Your task to perform on an android device: Open Google Maps and go to "Timeline" Image 0: 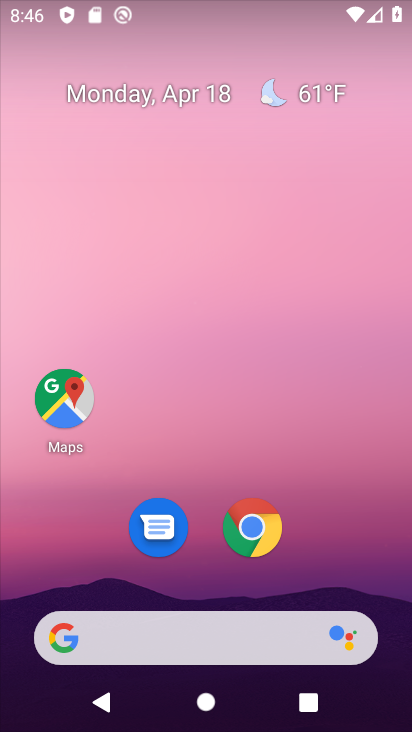
Step 0: click (61, 399)
Your task to perform on an android device: Open Google Maps and go to "Timeline" Image 1: 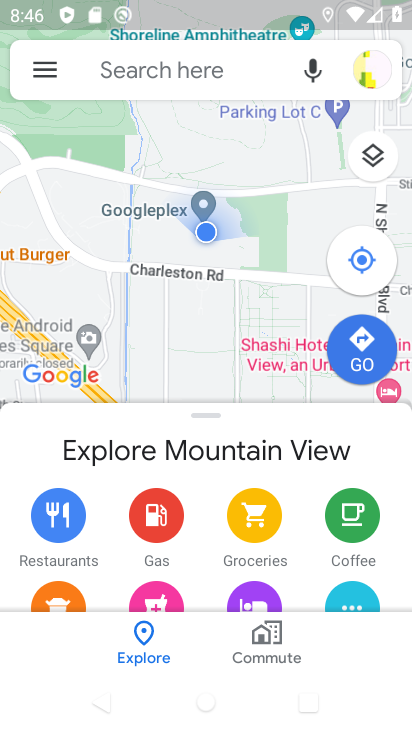
Step 1: click (41, 74)
Your task to perform on an android device: Open Google Maps and go to "Timeline" Image 2: 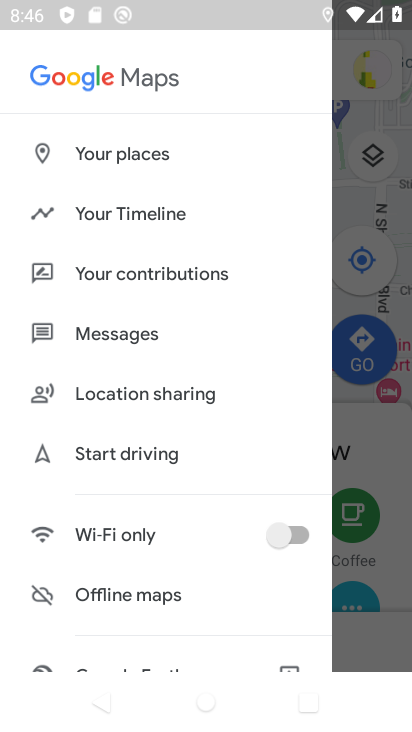
Step 2: click (116, 214)
Your task to perform on an android device: Open Google Maps and go to "Timeline" Image 3: 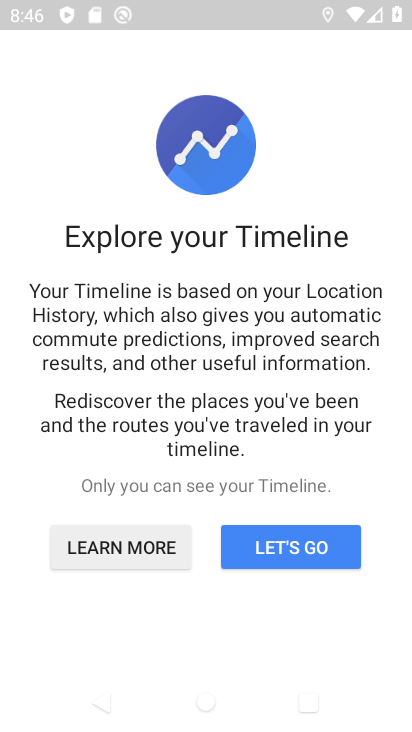
Step 3: click (323, 545)
Your task to perform on an android device: Open Google Maps and go to "Timeline" Image 4: 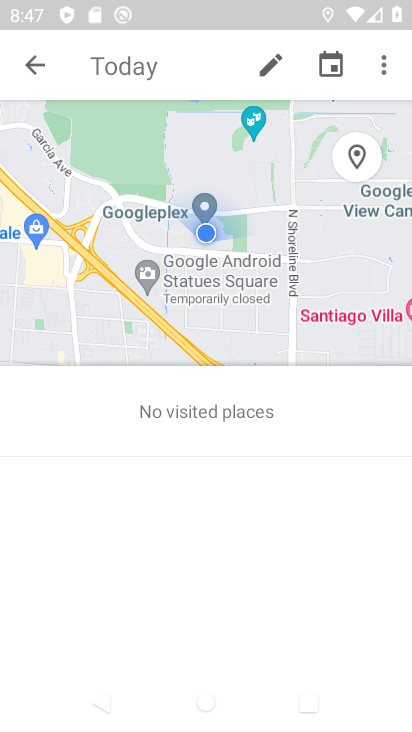
Step 4: task complete